Your task to perform on an android device: Open accessibility settings Image 0: 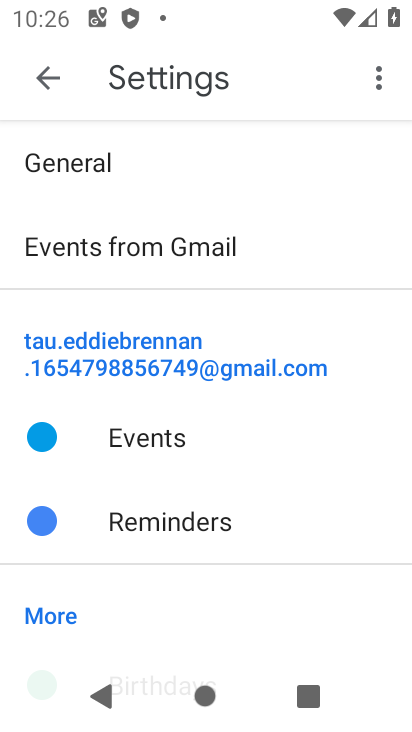
Step 0: press back button
Your task to perform on an android device: Open accessibility settings Image 1: 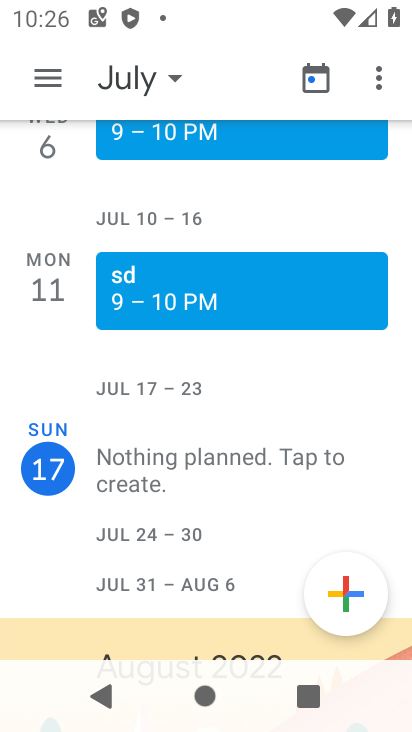
Step 1: press back button
Your task to perform on an android device: Open accessibility settings Image 2: 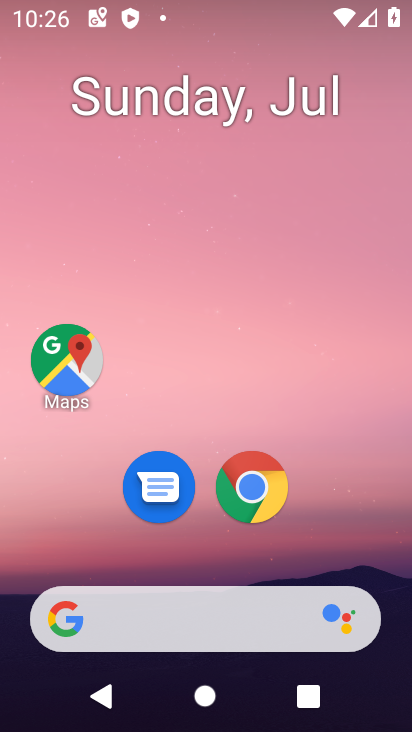
Step 2: drag from (221, 569) to (293, 6)
Your task to perform on an android device: Open accessibility settings Image 3: 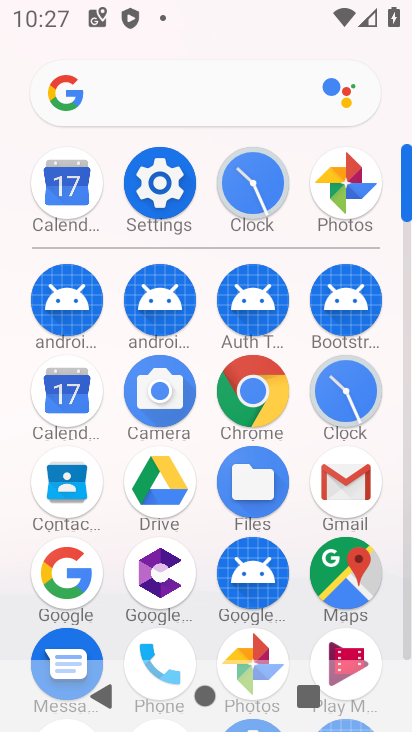
Step 3: click (152, 182)
Your task to perform on an android device: Open accessibility settings Image 4: 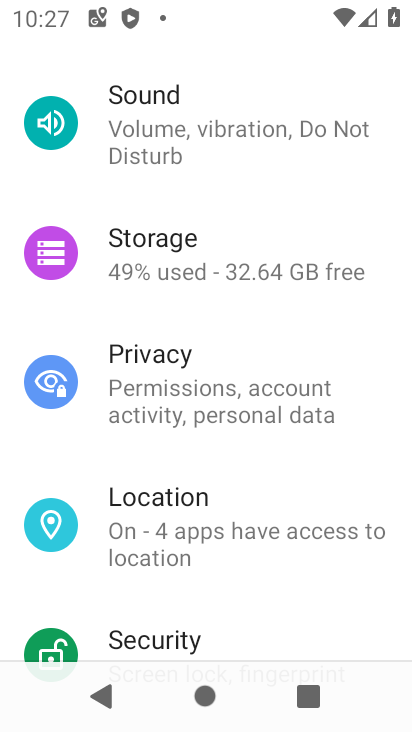
Step 4: drag from (180, 568) to (308, 35)
Your task to perform on an android device: Open accessibility settings Image 5: 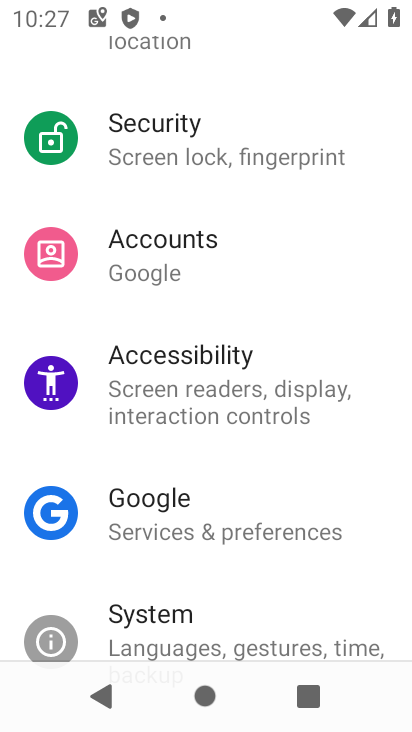
Step 5: click (157, 382)
Your task to perform on an android device: Open accessibility settings Image 6: 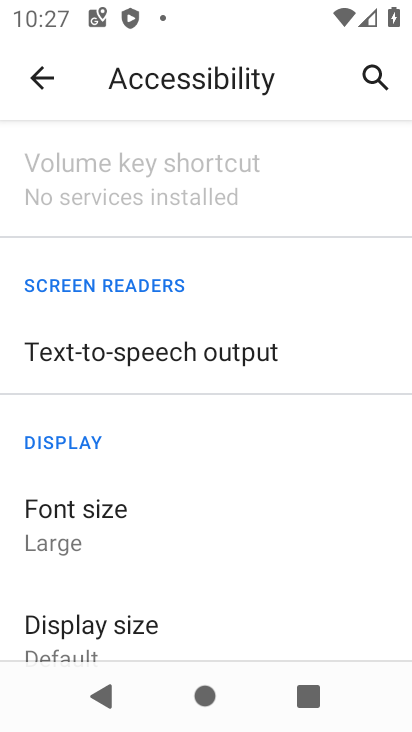
Step 6: task complete